Your task to perform on an android device: change notification settings in the gmail app Image 0: 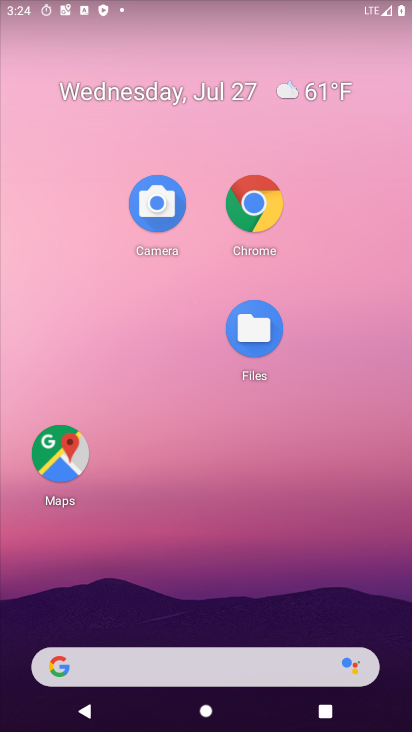
Step 0: drag from (245, 445) to (275, 99)
Your task to perform on an android device: change notification settings in the gmail app Image 1: 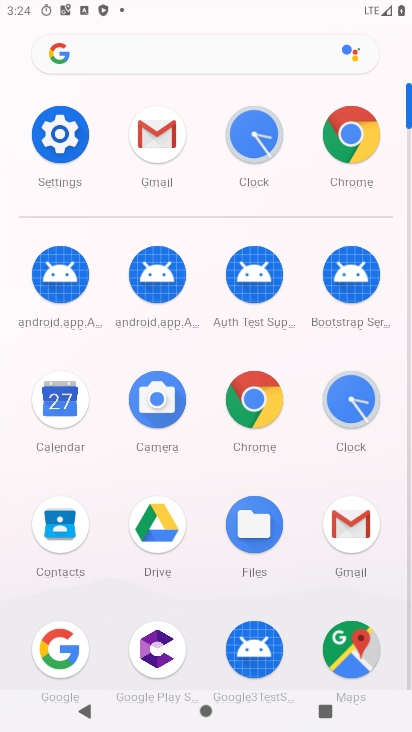
Step 1: click (163, 140)
Your task to perform on an android device: change notification settings in the gmail app Image 2: 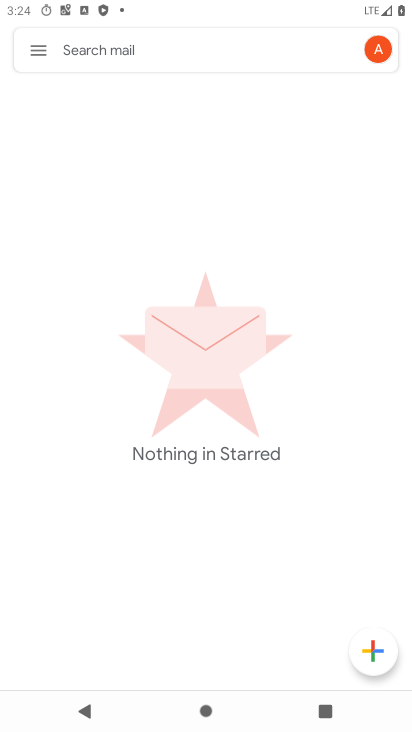
Step 2: click (27, 55)
Your task to perform on an android device: change notification settings in the gmail app Image 3: 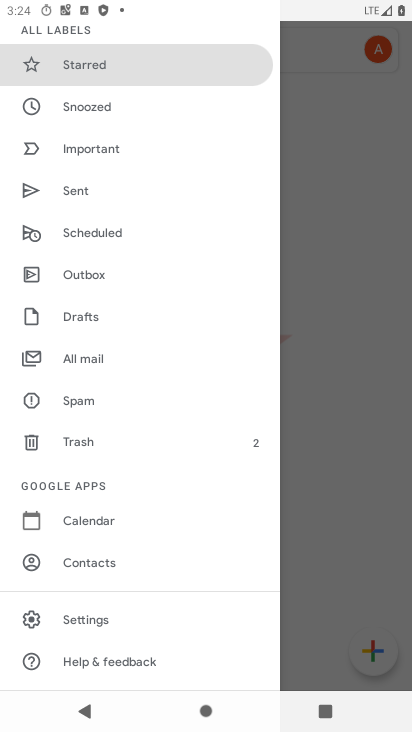
Step 3: click (88, 621)
Your task to perform on an android device: change notification settings in the gmail app Image 4: 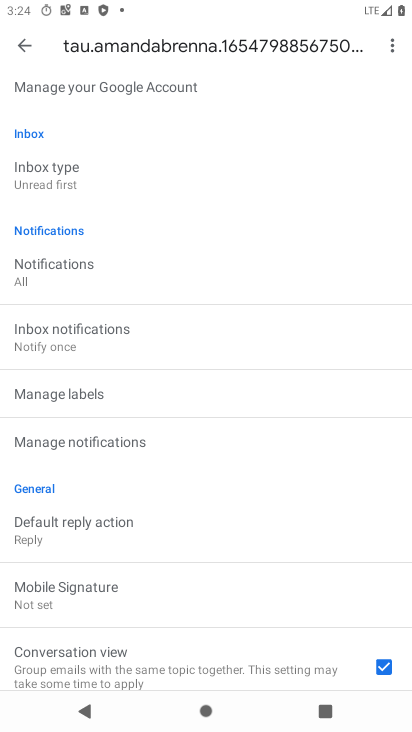
Step 4: click (95, 442)
Your task to perform on an android device: change notification settings in the gmail app Image 5: 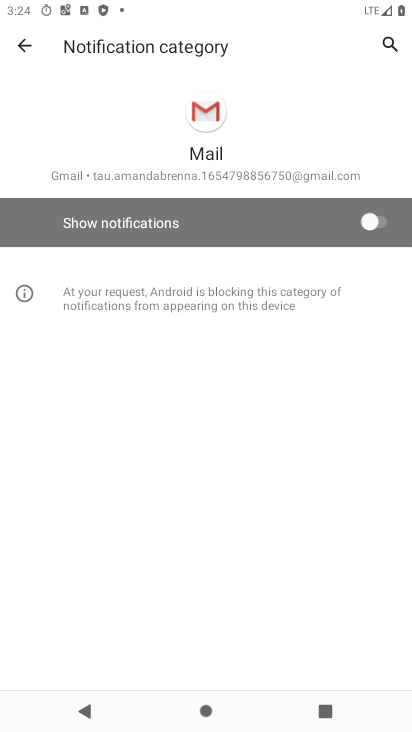
Step 5: click (381, 226)
Your task to perform on an android device: change notification settings in the gmail app Image 6: 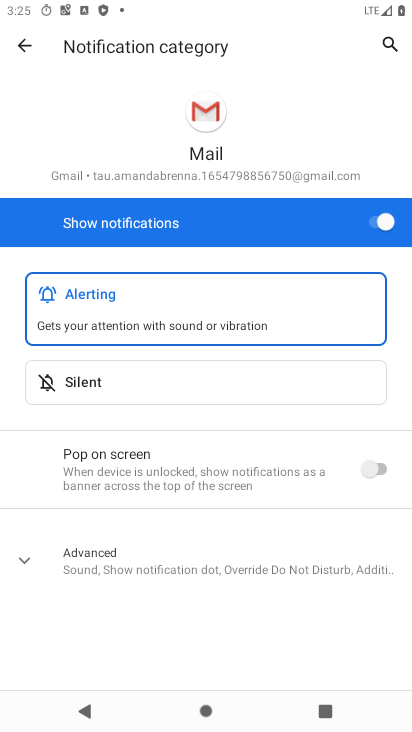
Step 6: task complete